Your task to perform on an android device: Open calendar and show me the second week of next month Image 0: 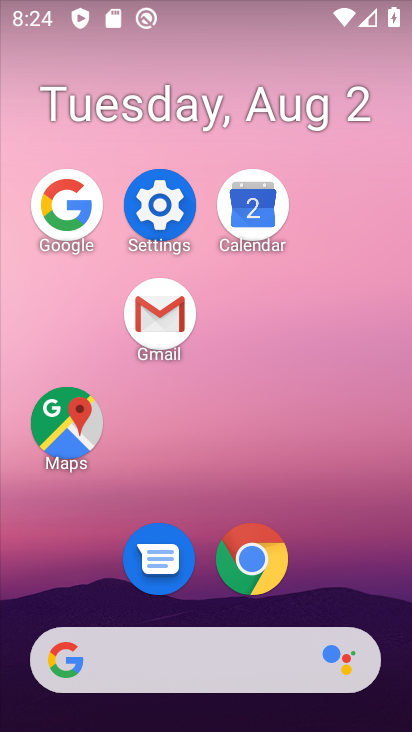
Step 0: click (271, 193)
Your task to perform on an android device: Open calendar and show me the second week of next month Image 1: 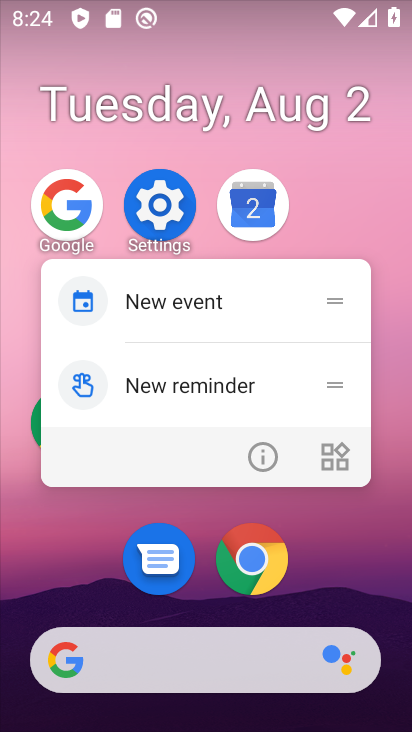
Step 1: click (271, 193)
Your task to perform on an android device: Open calendar and show me the second week of next month Image 2: 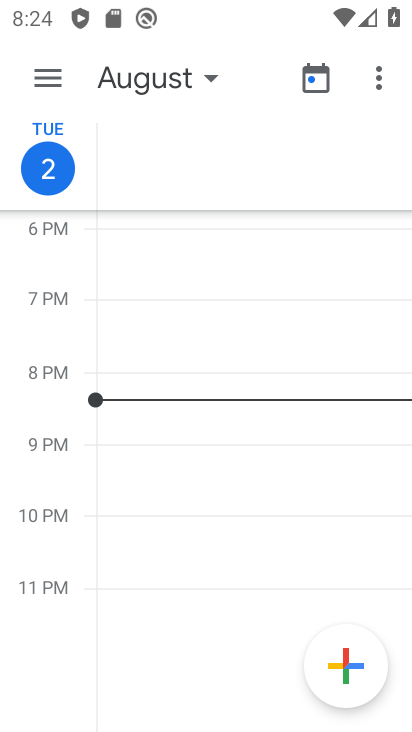
Step 2: click (168, 80)
Your task to perform on an android device: Open calendar and show me the second week of next month Image 3: 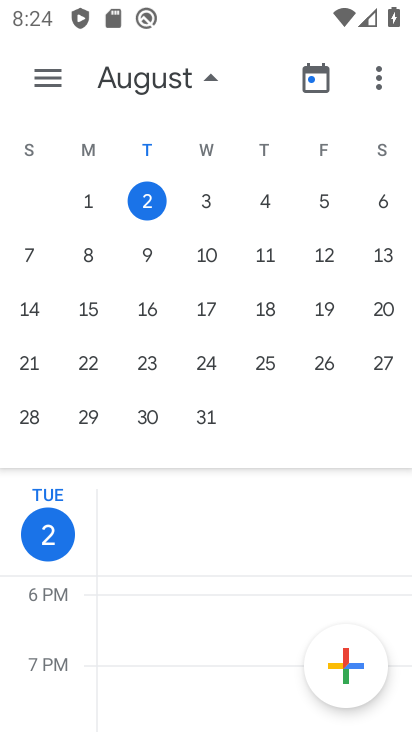
Step 3: drag from (381, 256) to (0, 317)
Your task to perform on an android device: Open calendar and show me the second week of next month Image 4: 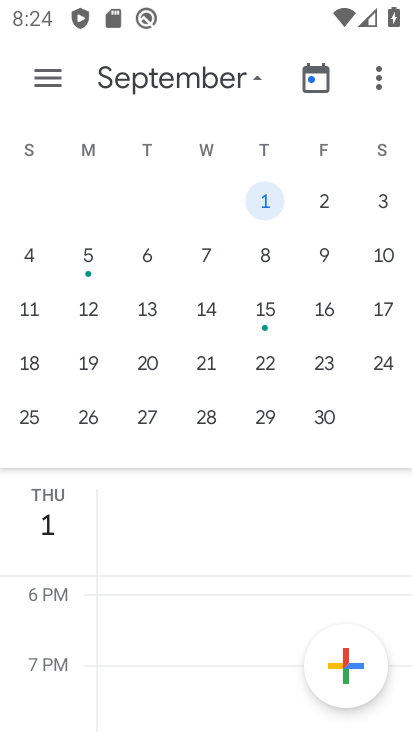
Step 4: click (45, 79)
Your task to perform on an android device: Open calendar and show me the second week of next month Image 5: 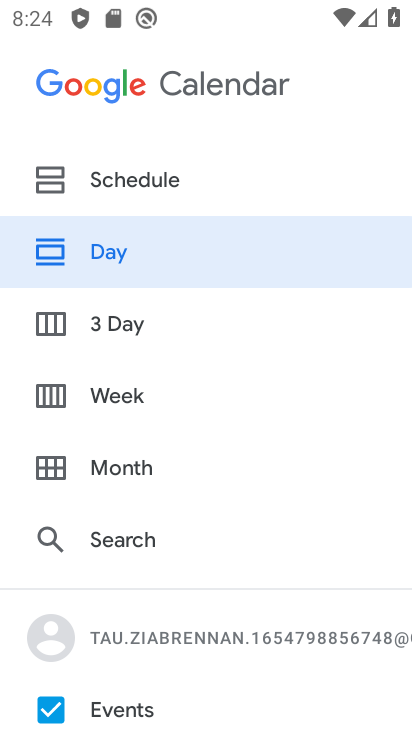
Step 5: click (140, 389)
Your task to perform on an android device: Open calendar and show me the second week of next month Image 6: 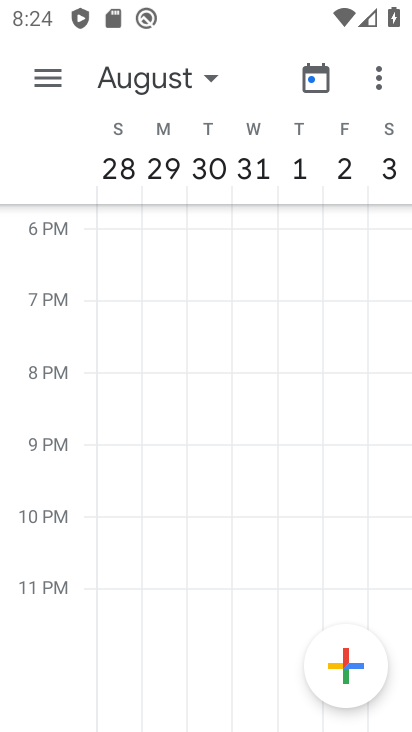
Step 6: task complete